Your task to perform on an android device: allow notifications from all sites in the chrome app Image 0: 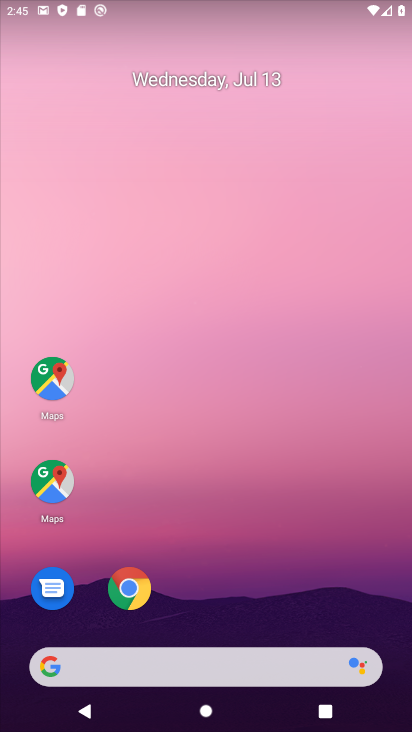
Step 0: click (117, 194)
Your task to perform on an android device: allow notifications from all sites in the chrome app Image 1: 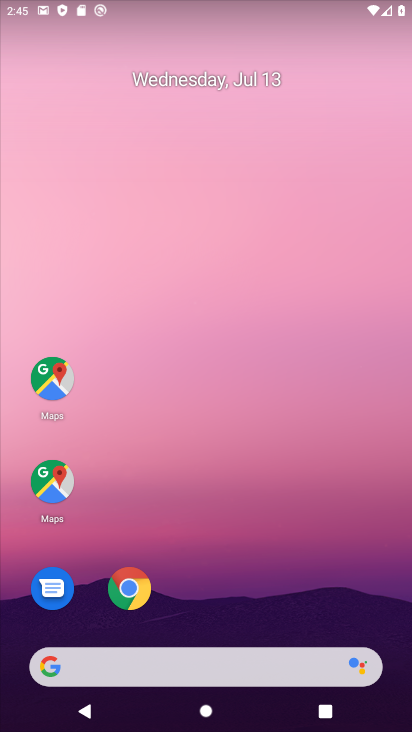
Step 1: drag from (192, 280) to (144, 86)
Your task to perform on an android device: allow notifications from all sites in the chrome app Image 2: 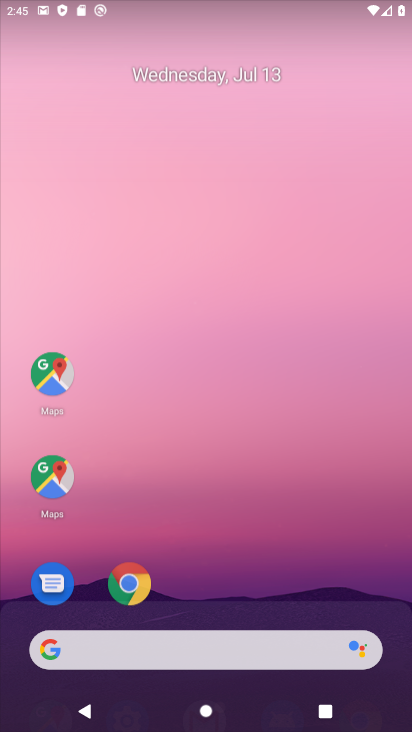
Step 2: drag from (176, 417) to (81, 151)
Your task to perform on an android device: allow notifications from all sites in the chrome app Image 3: 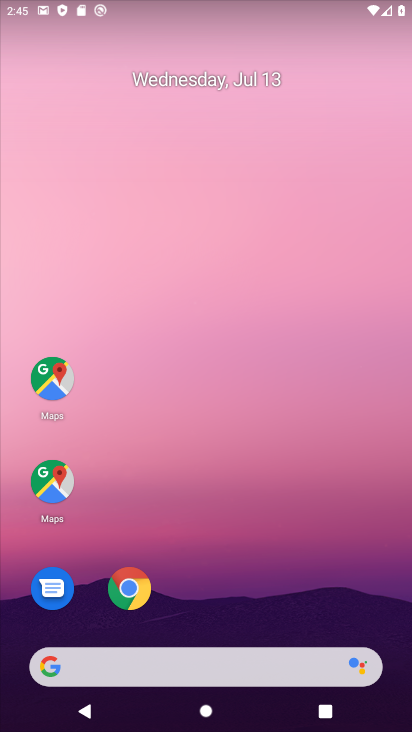
Step 3: drag from (237, 590) to (187, 257)
Your task to perform on an android device: allow notifications from all sites in the chrome app Image 4: 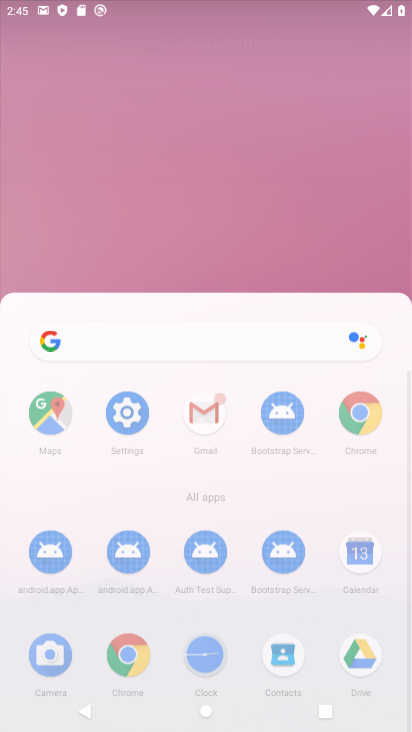
Step 4: drag from (215, 490) to (215, 253)
Your task to perform on an android device: allow notifications from all sites in the chrome app Image 5: 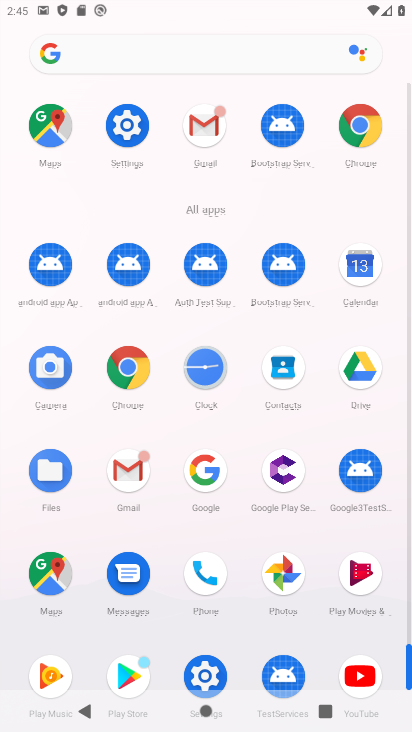
Step 5: drag from (260, 566) to (241, 115)
Your task to perform on an android device: allow notifications from all sites in the chrome app Image 6: 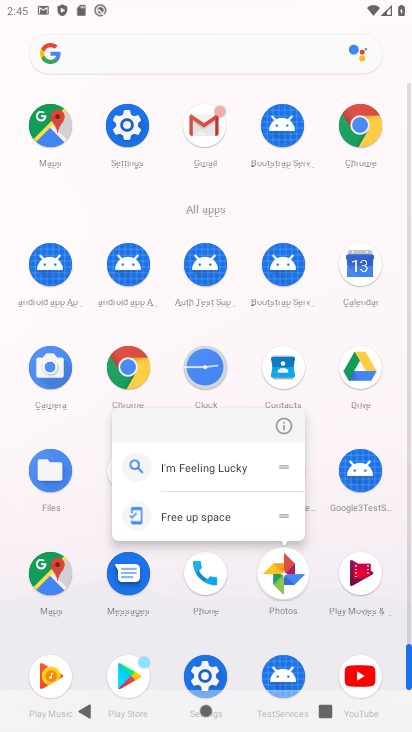
Step 6: drag from (252, 362) to (229, 274)
Your task to perform on an android device: allow notifications from all sites in the chrome app Image 7: 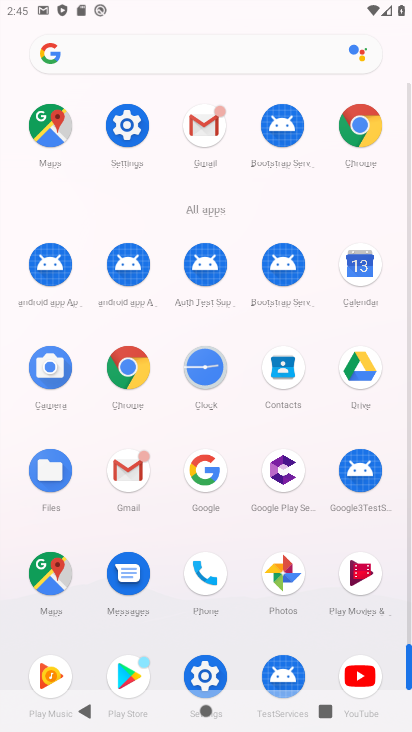
Step 7: click (210, 231)
Your task to perform on an android device: allow notifications from all sites in the chrome app Image 8: 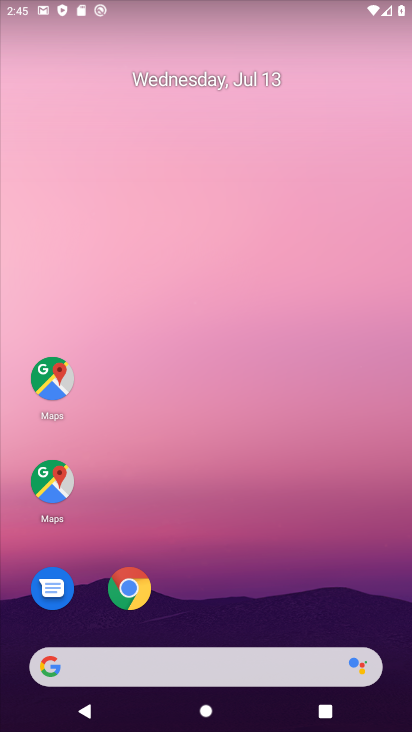
Step 8: drag from (233, 639) to (191, 149)
Your task to perform on an android device: allow notifications from all sites in the chrome app Image 9: 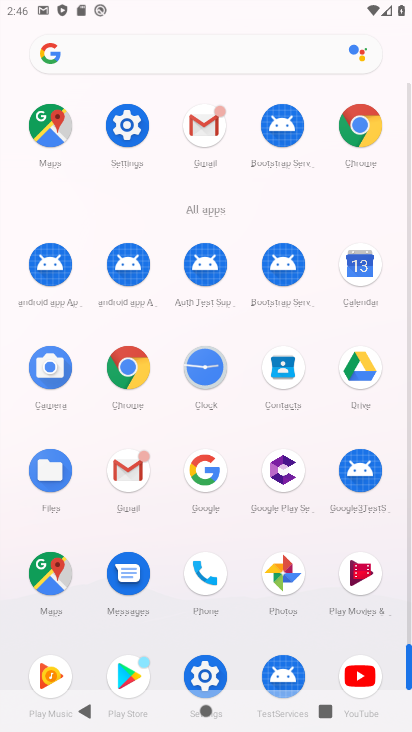
Step 9: drag from (161, 86) to (244, 23)
Your task to perform on an android device: allow notifications from all sites in the chrome app Image 10: 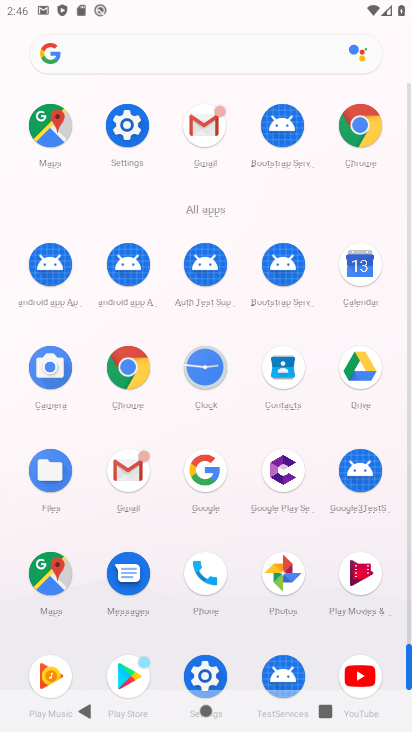
Step 10: drag from (221, 199) to (223, 15)
Your task to perform on an android device: allow notifications from all sites in the chrome app Image 11: 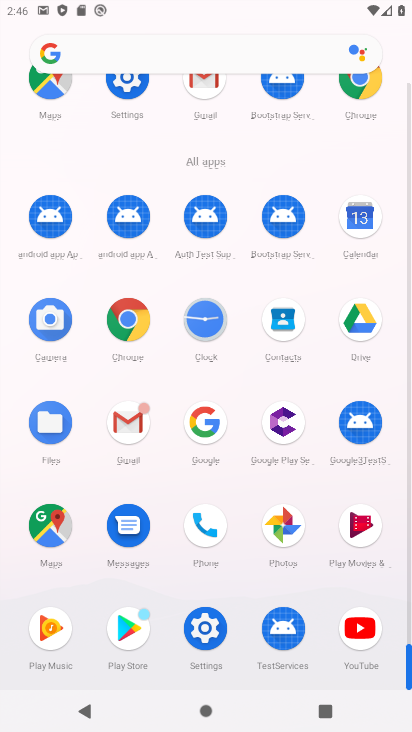
Step 11: click (121, 336)
Your task to perform on an android device: allow notifications from all sites in the chrome app Image 12: 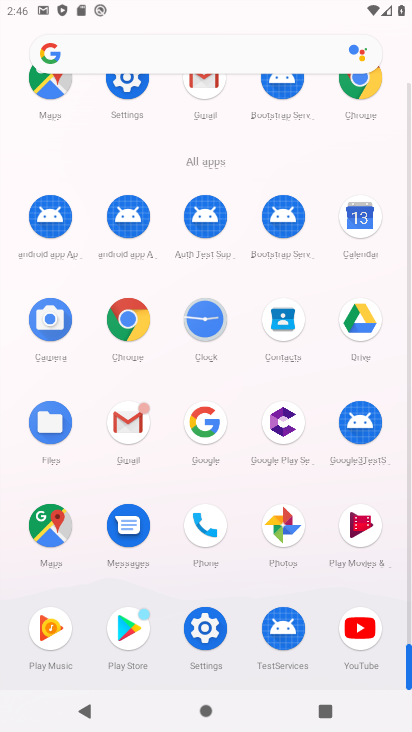
Step 12: click (125, 330)
Your task to perform on an android device: allow notifications from all sites in the chrome app Image 13: 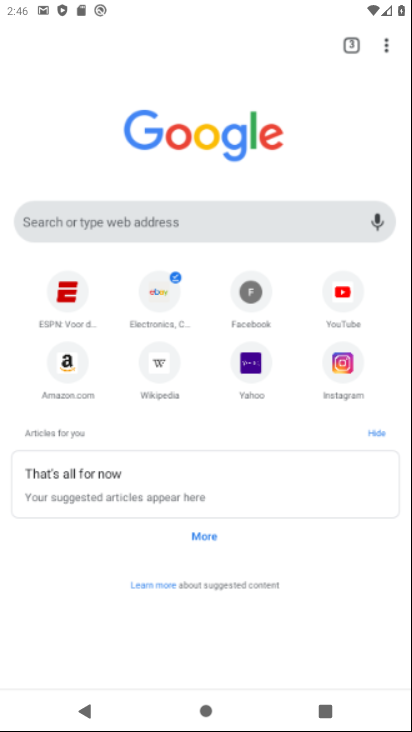
Step 13: click (125, 327)
Your task to perform on an android device: allow notifications from all sites in the chrome app Image 14: 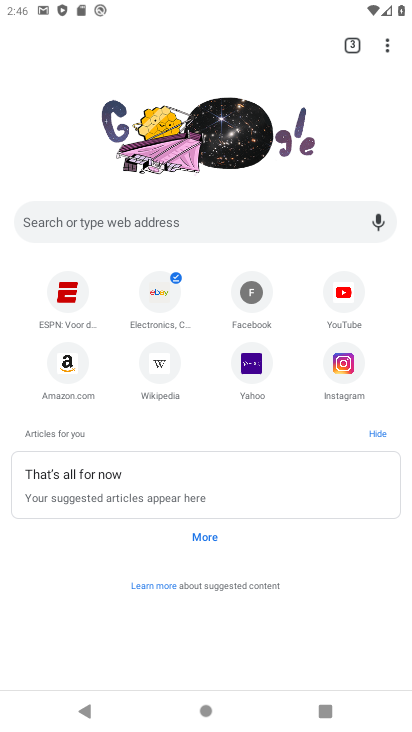
Step 14: click (390, 48)
Your task to perform on an android device: allow notifications from all sites in the chrome app Image 15: 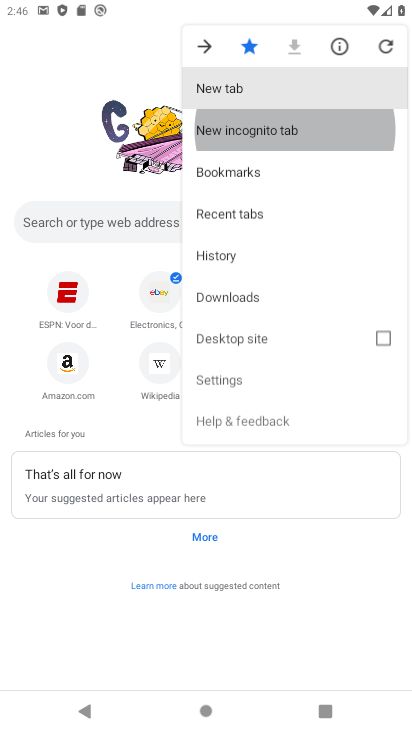
Step 15: drag from (389, 46) to (221, 380)
Your task to perform on an android device: allow notifications from all sites in the chrome app Image 16: 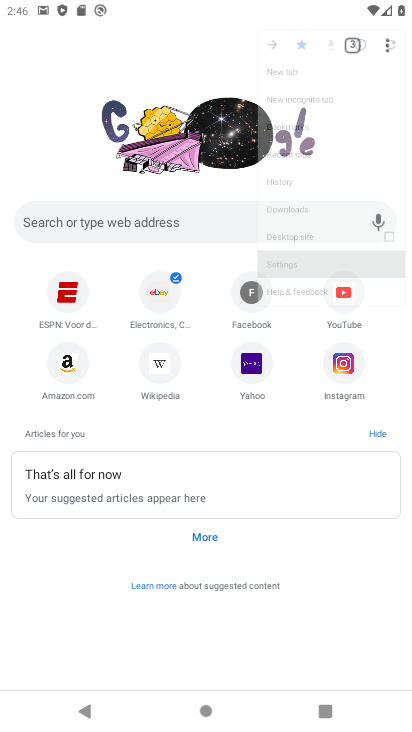
Step 16: click (221, 380)
Your task to perform on an android device: allow notifications from all sites in the chrome app Image 17: 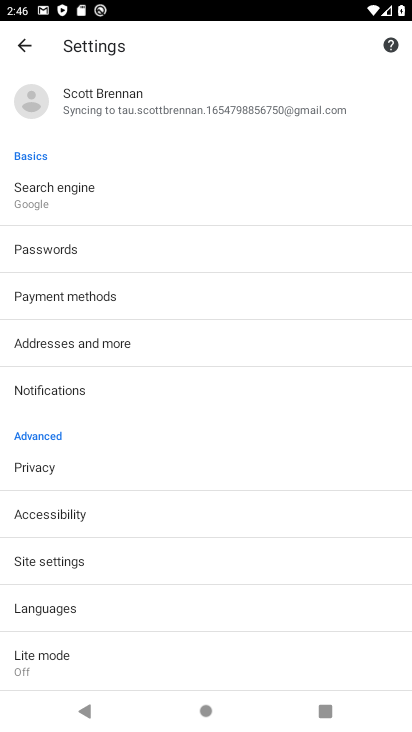
Step 17: click (36, 393)
Your task to perform on an android device: allow notifications from all sites in the chrome app Image 18: 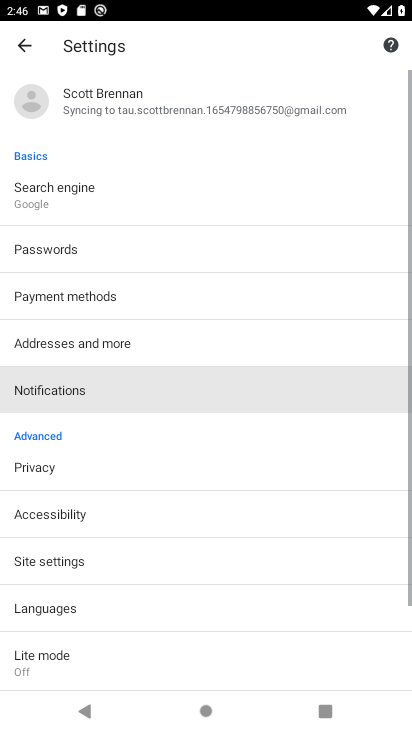
Step 18: click (45, 389)
Your task to perform on an android device: allow notifications from all sites in the chrome app Image 19: 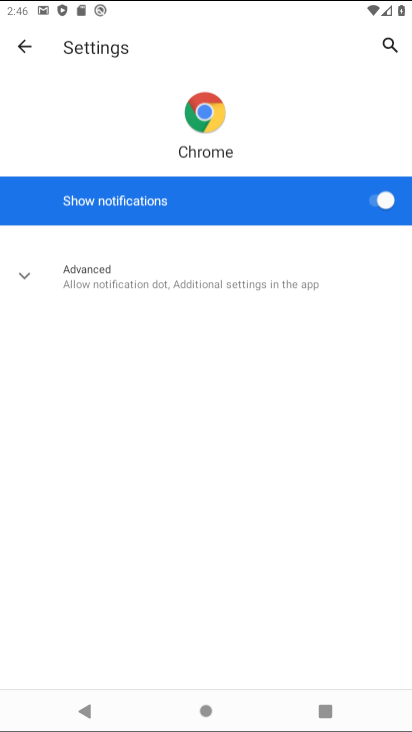
Step 19: click (49, 389)
Your task to perform on an android device: allow notifications from all sites in the chrome app Image 20: 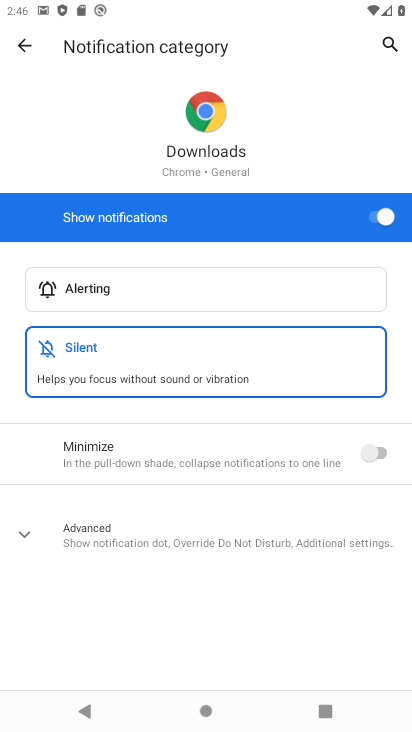
Step 20: task complete